Your task to perform on an android device: turn smart compose on in the gmail app Image 0: 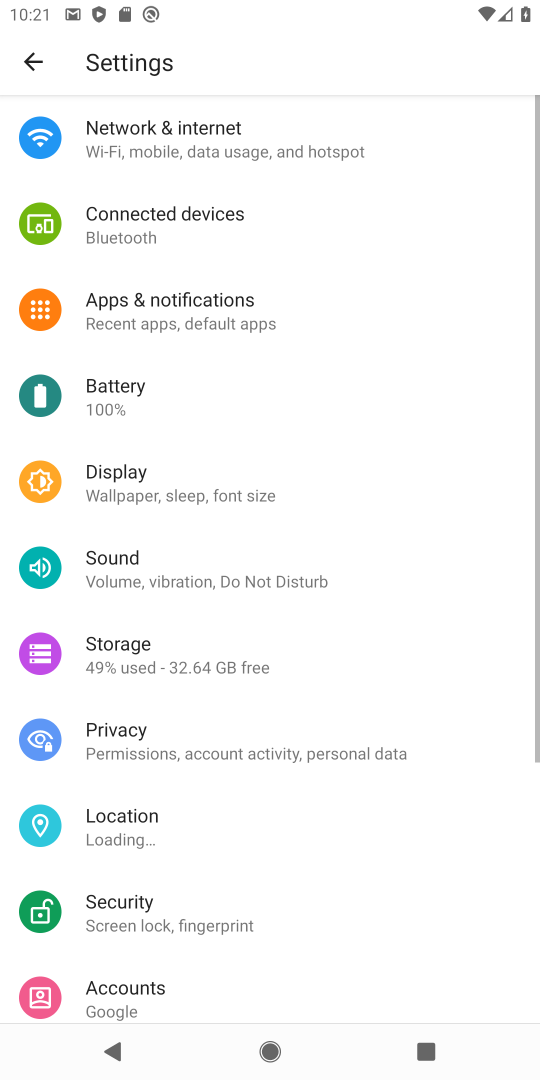
Step 0: press back button
Your task to perform on an android device: turn smart compose on in the gmail app Image 1: 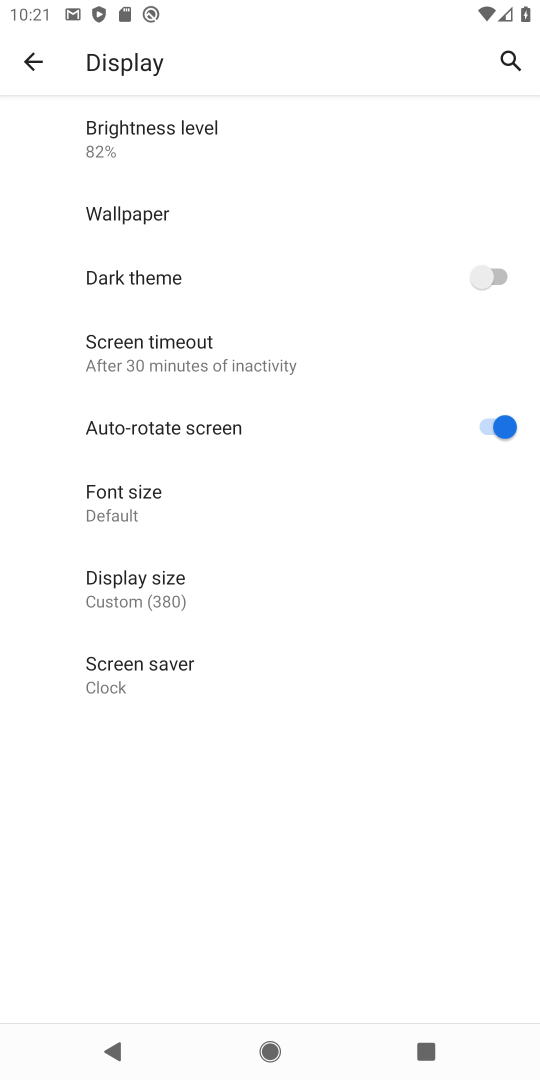
Step 1: press home button
Your task to perform on an android device: turn smart compose on in the gmail app Image 2: 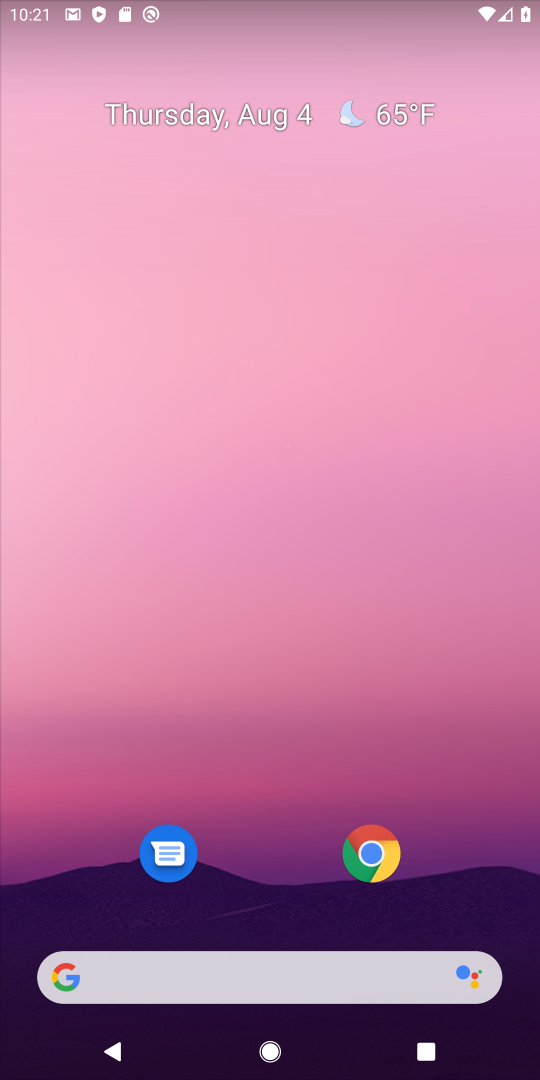
Step 2: drag from (281, 931) to (245, 100)
Your task to perform on an android device: turn smart compose on in the gmail app Image 3: 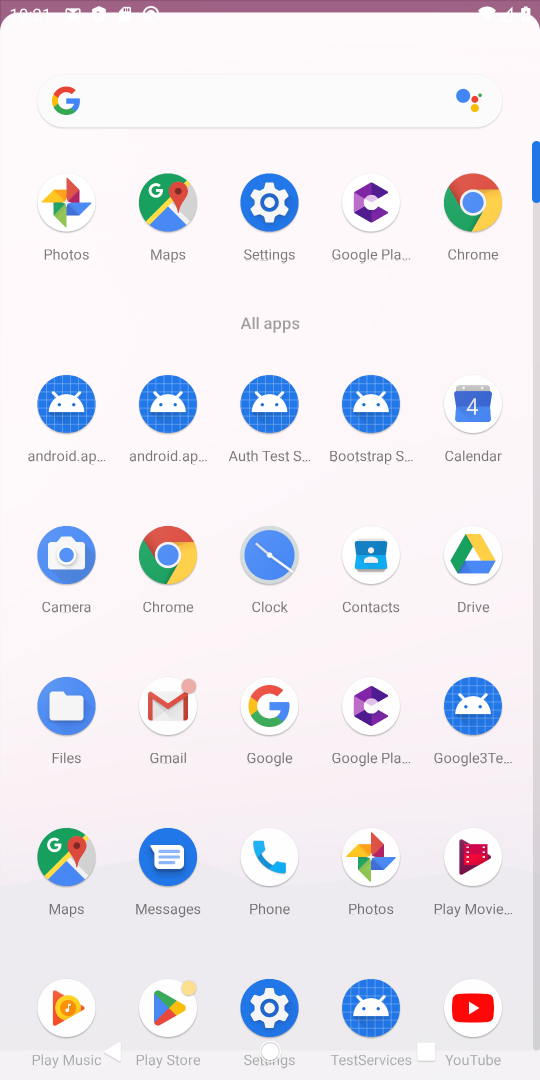
Step 3: click (157, 690)
Your task to perform on an android device: turn smart compose on in the gmail app Image 4: 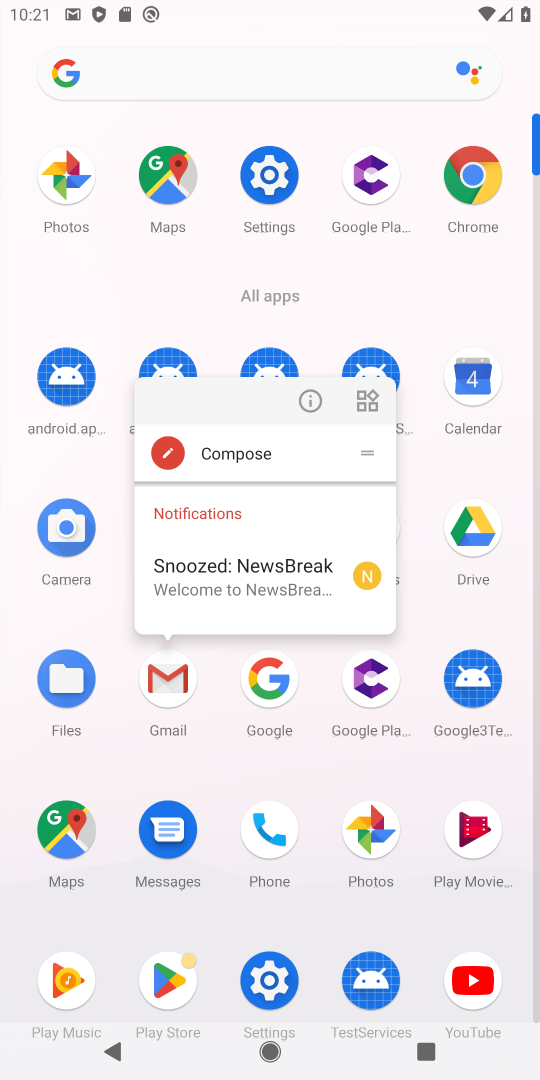
Step 4: click (152, 685)
Your task to perform on an android device: turn smart compose on in the gmail app Image 5: 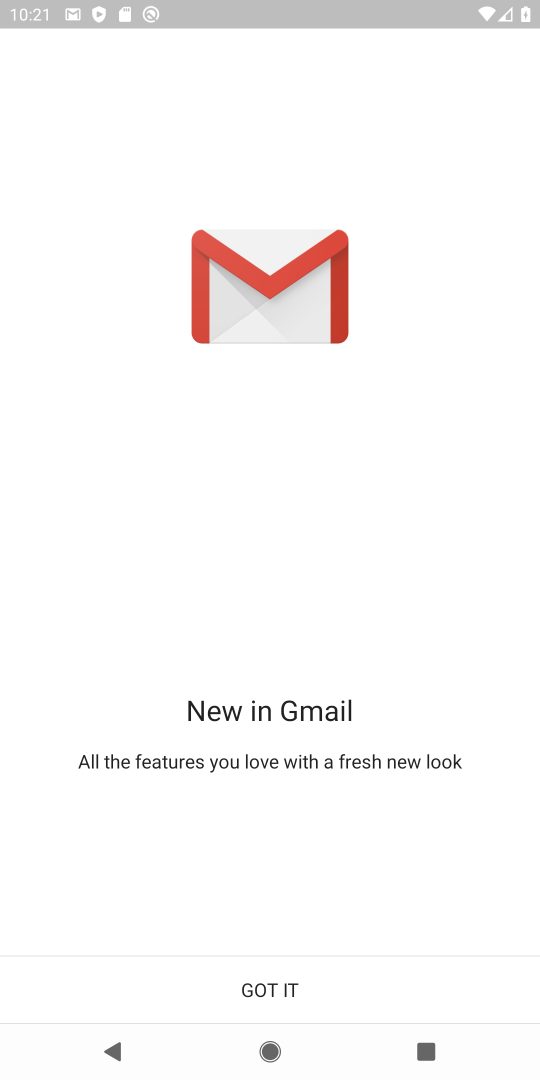
Step 5: drag from (228, 983) to (283, 983)
Your task to perform on an android device: turn smart compose on in the gmail app Image 6: 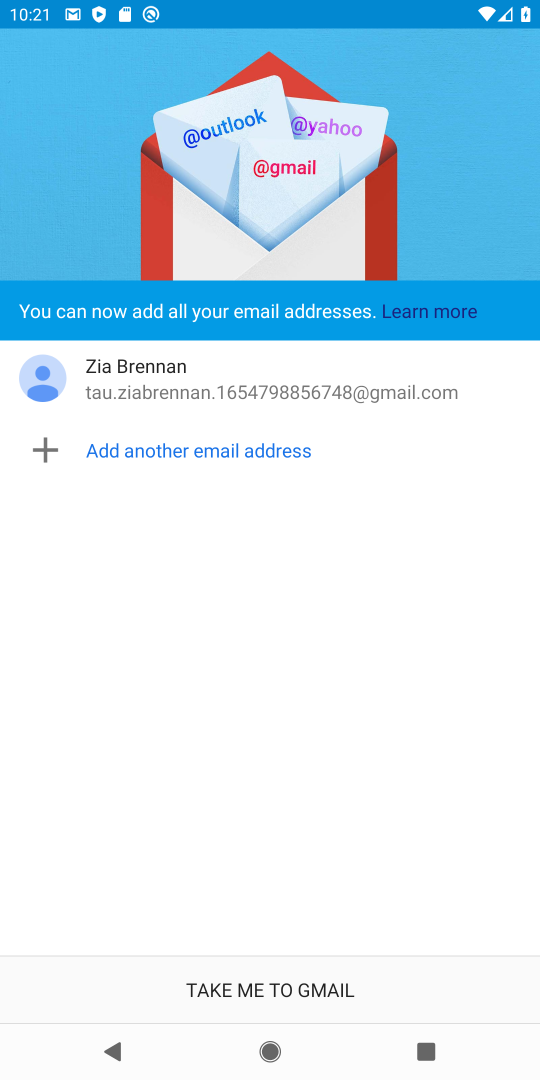
Step 6: click (284, 981)
Your task to perform on an android device: turn smart compose on in the gmail app Image 7: 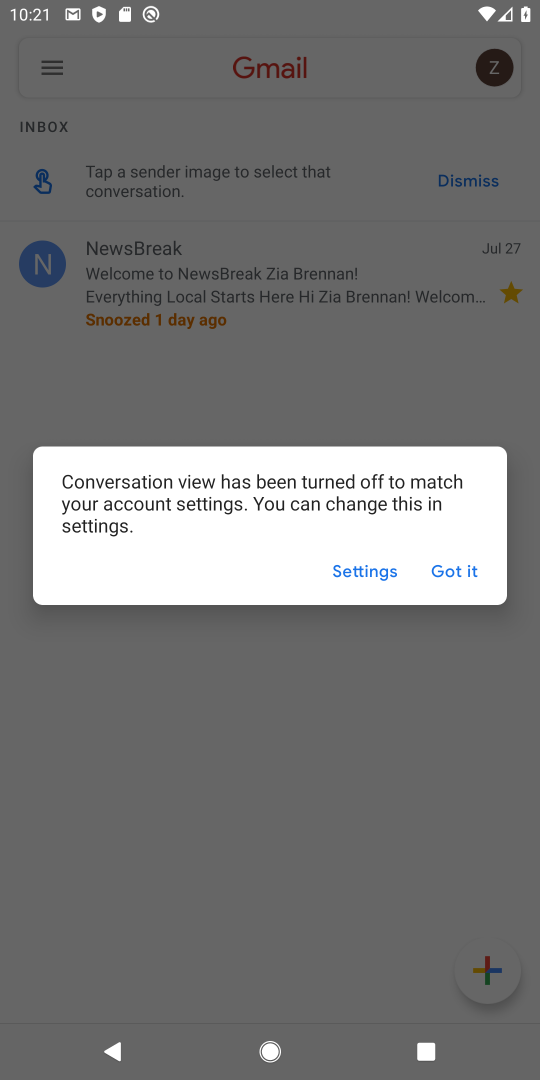
Step 7: click (467, 569)
Your task to perform on an android device: turn smart compose on in the gmail app Image 8: 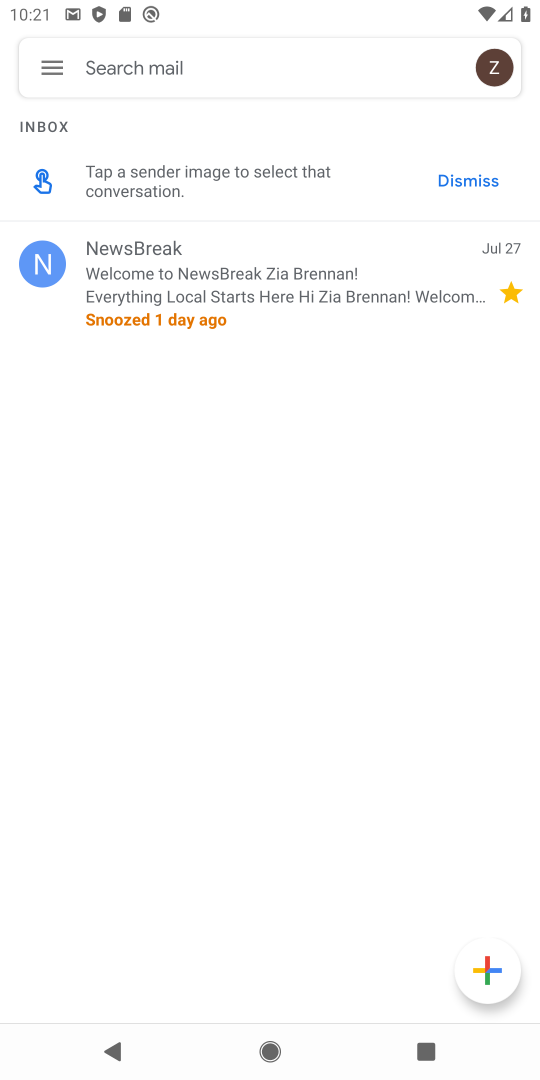
Step 8: click (34, 64)
Your task to perform on an android device: turn smart compose on in the gmail app Image 9: 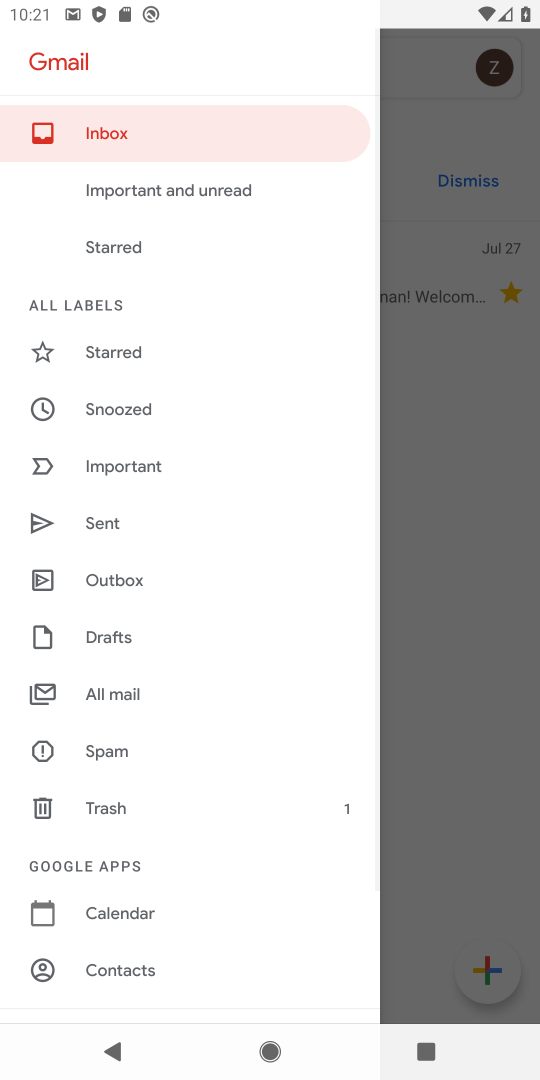
Step 9: drag from (135, 788) to (89, 15)
Your task to perform on an android device: turn smart compose on in the gmail app Image 10: 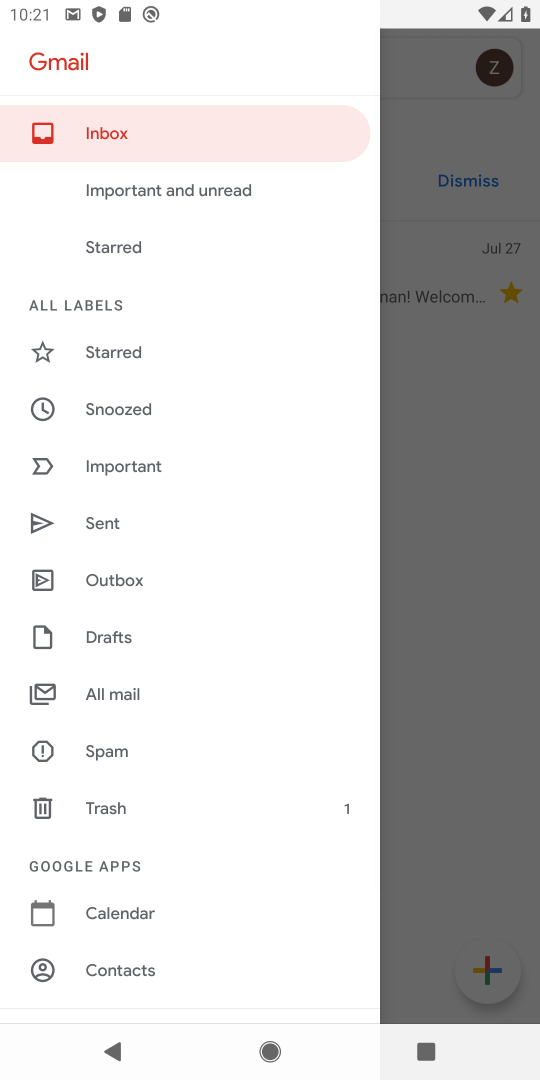
Step 10: drag from (152, 822) to (163, 183)
Your task to perform on an android device: turn smart compose on in the gmail app Image 11: 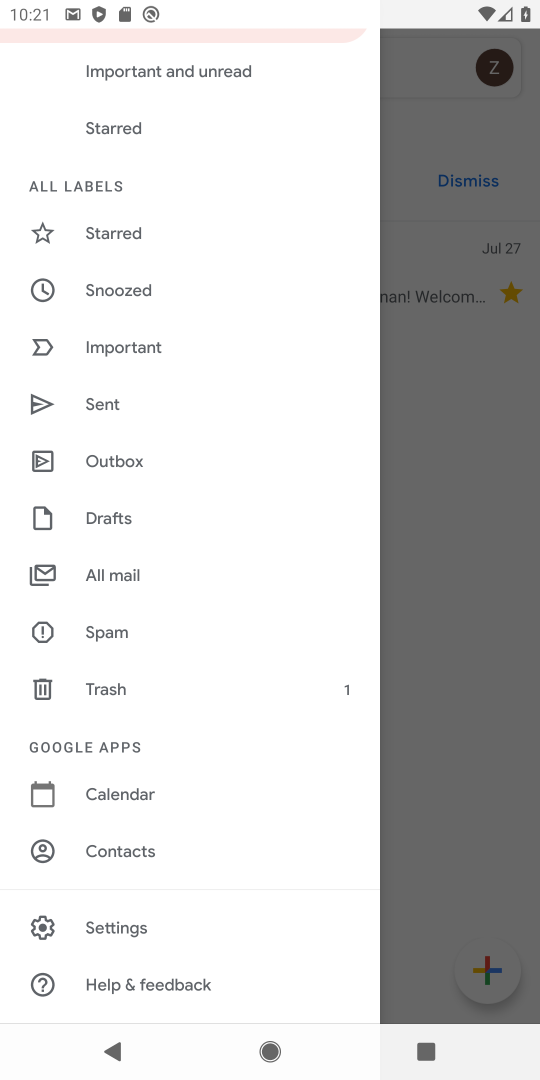
Step 11: click (145, 928)
Your task to perform on an android device: turn smart compose on in the gmail app Image 12: 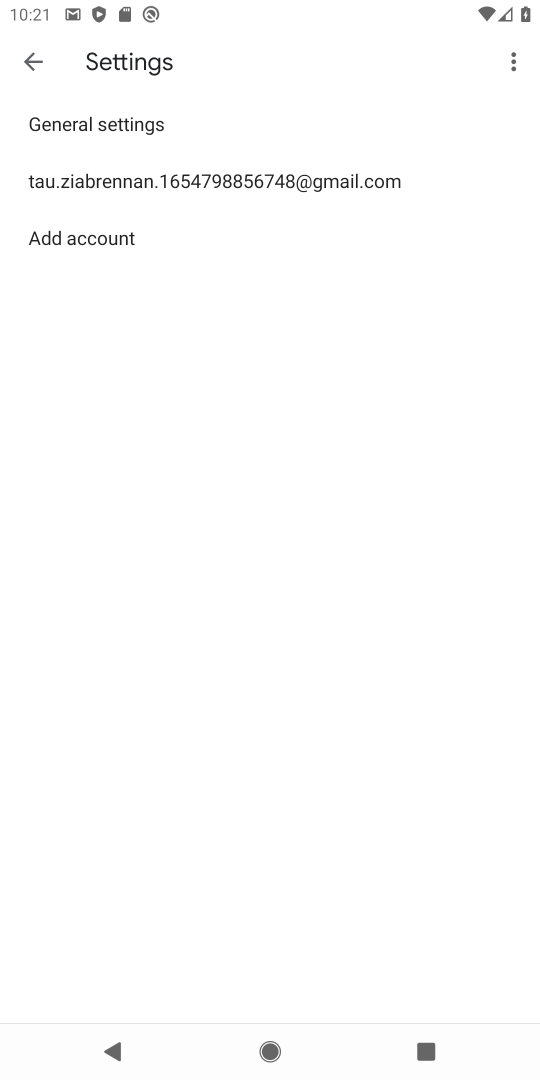
Step 12: click (101, 177)
Your task to perform on an android device: turn smart compose on in the gmail app Image 13: 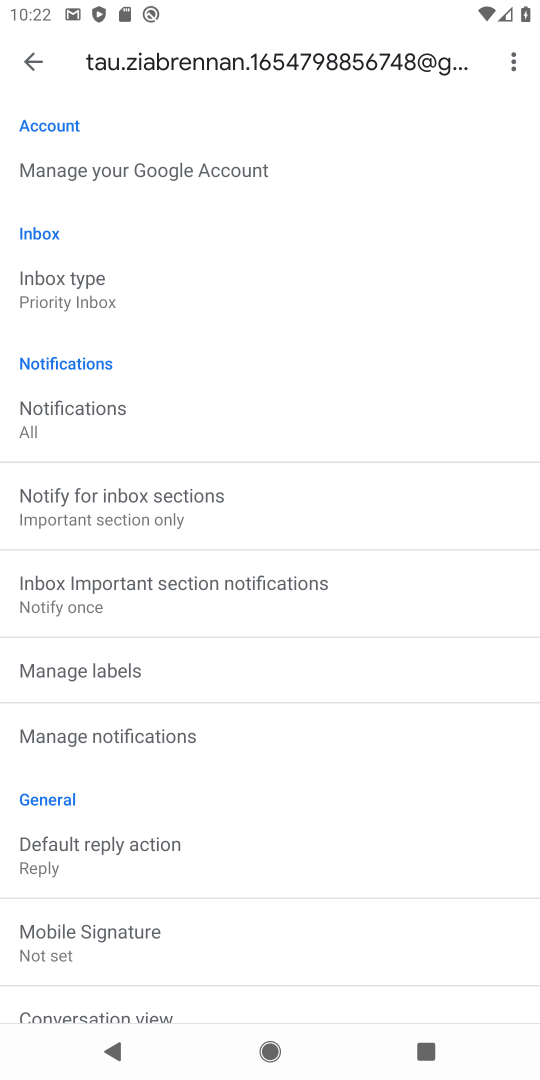
Step 13: task complete